Your task to perform on an android device: add a contact in the contacts app Image 0: 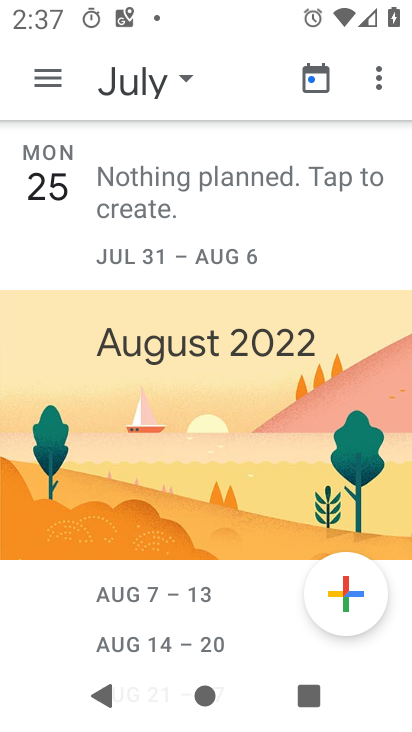
Step 0: press home button
Your task to perform on an android device: add a contact in the contacts app Image 1: 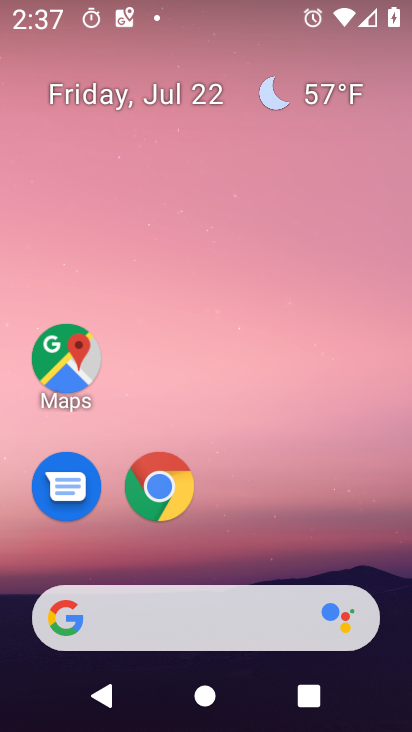
Step 1: drag from (380, 542) to (363, 88)
Your task to perform on an android device: add a contact in the contacts app Image 2: 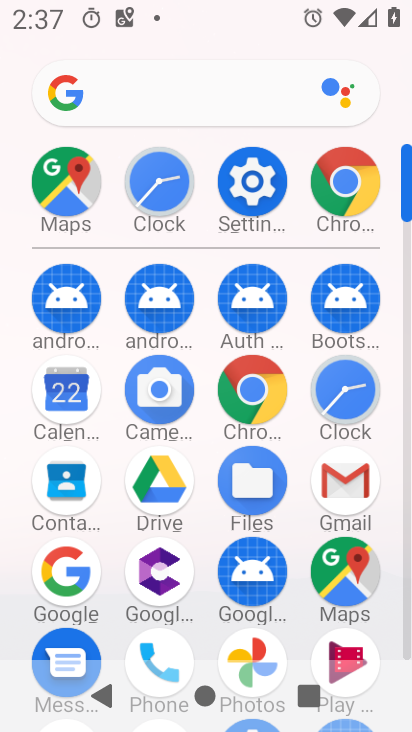
Step 2: click (68, 484)
Your task to perform on an android device: add a contact in the contacts app Image 3: 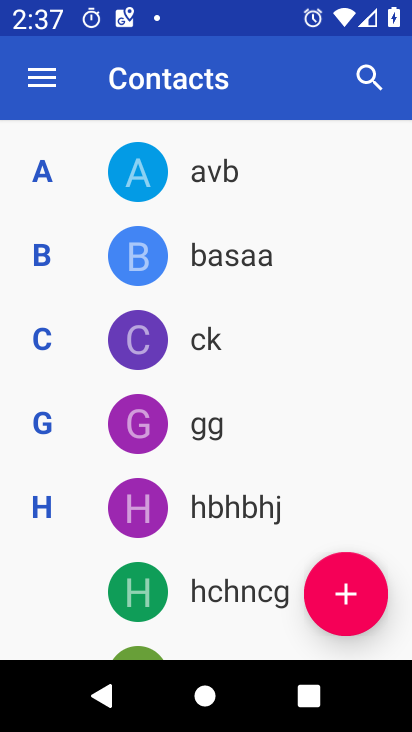
Step 3: click (369, 605)
Your task to perform on an android device: add a contact in the contacts app Image 4: 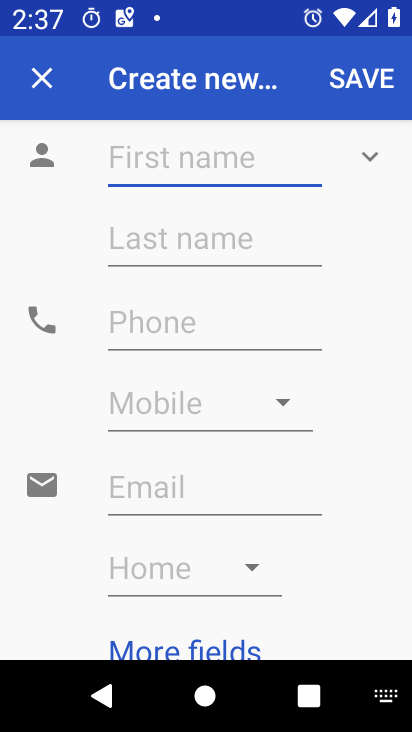
Step 4: type "hhh"
Your task to perform on an android device: add a contact in the contacts app Image 5: 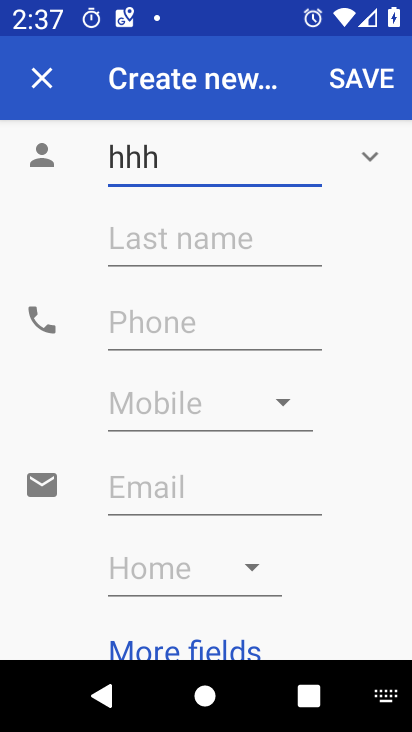
Step 5: click (305, 319)
Your task to perform on an android device: add a contact in the contacts app Image 6: 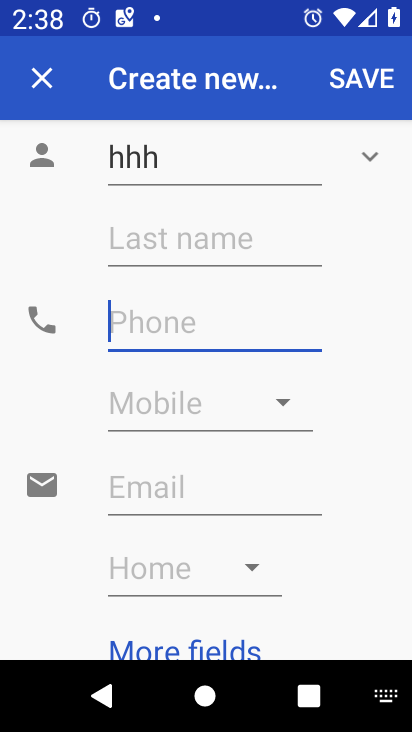
Step 6: type "123456778"
Your task to perform on an android device: add a contact in the contacts app Image 7: 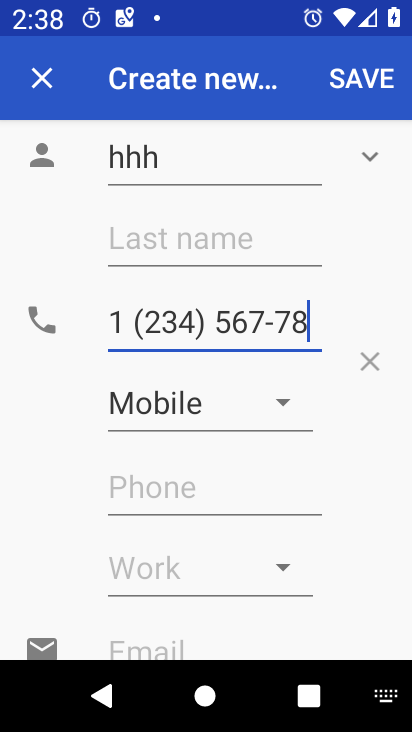
Step 7: click (384, 82)
Your task to perform on an android device: add a contact in the contacts app Image 8: 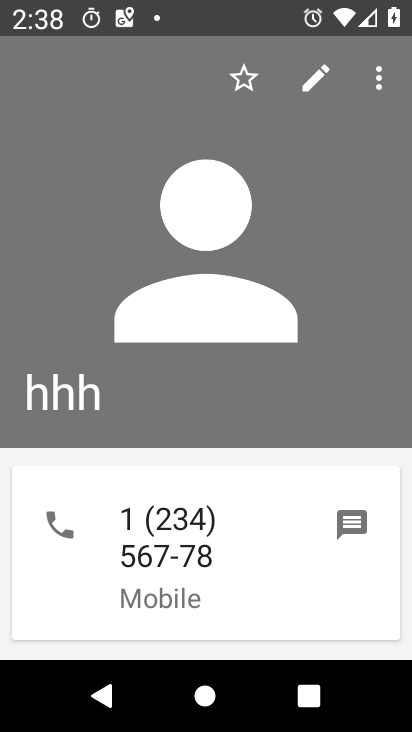
Step 8: task complete